Your task to perform on an android device: Show the shopping cart on newegg. Add "sony triple a" to the cart on newegg, then select checkout. Image 0: 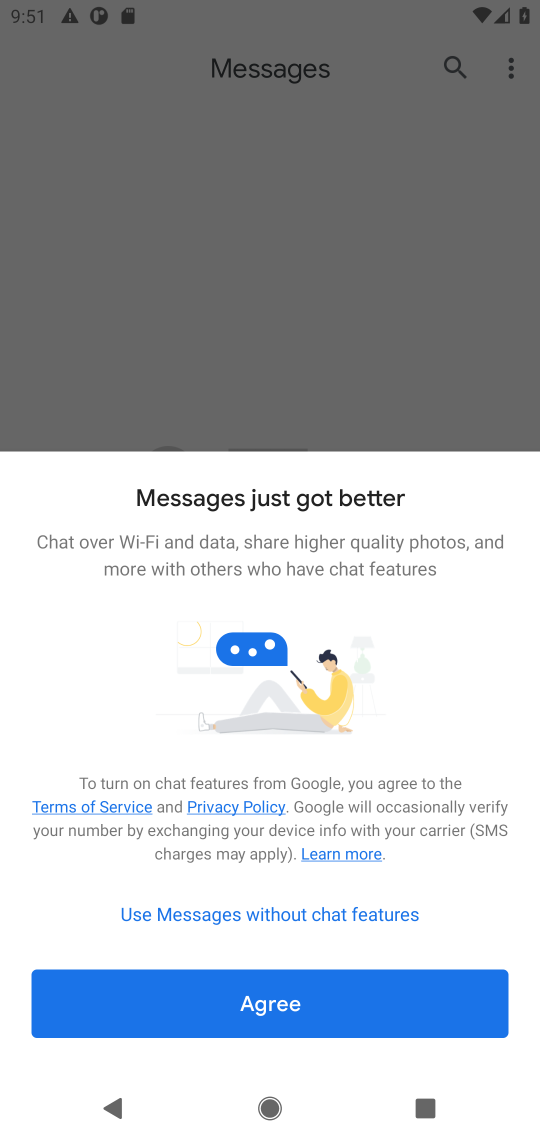
Step 0: press home button
Your task to perform on an android device: Show the shopping cart on newegg. Add "sony triple a" to the cart on newegg, then select checkout. Image 1: 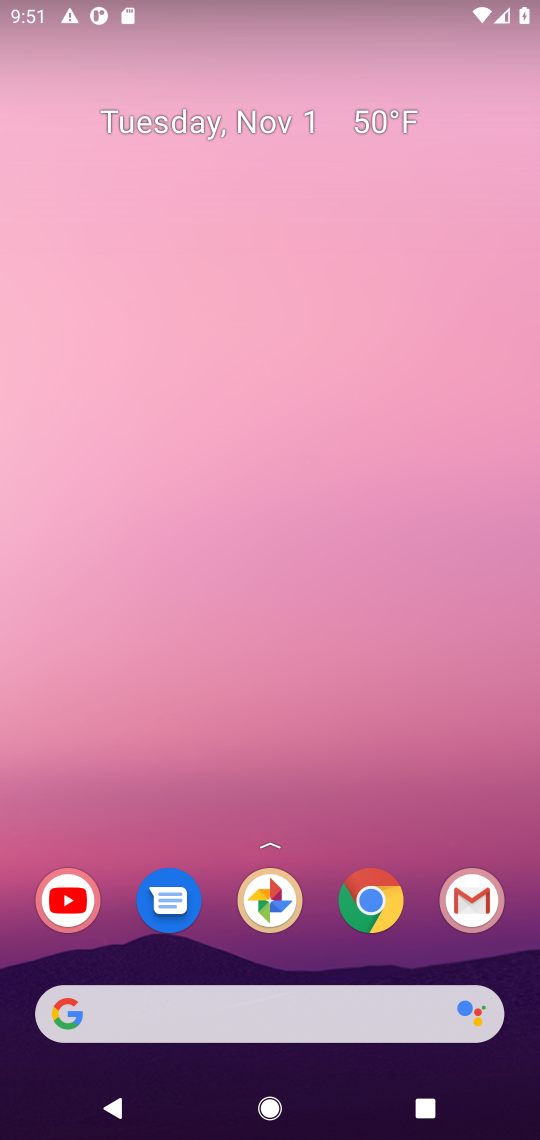
Step 1: click (393, 904)
Your task to perform on an android device: Show the shopping cart on newegg. Add "sony triple a" to the cart on newegg, then select checkout. Image 2: 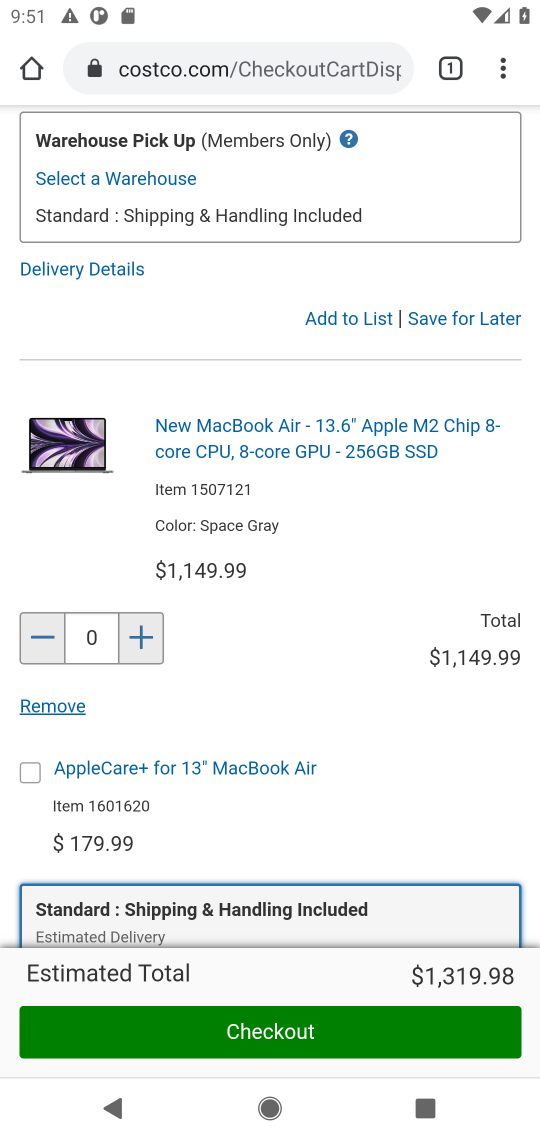
Step 2: click (307, 58)
Your task to perform on an android device: Show the shopping cart on newegg. Add "sony triple a" to the cart on newegg, then select checkout. Image 3: 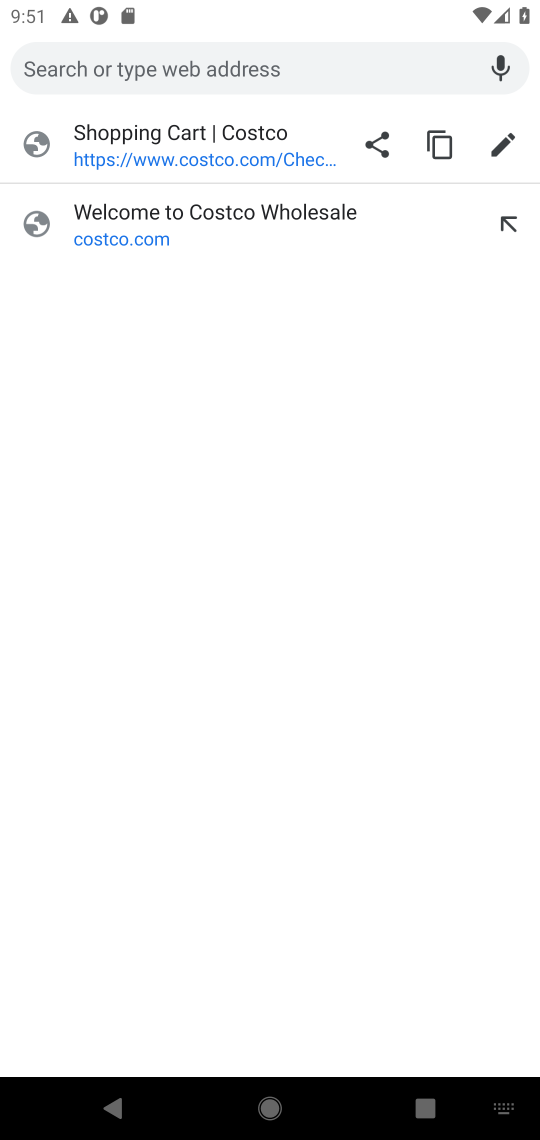
Step 3: type "newegg"
Your task to perform on an android device: Show the shopping cart on newegg. Add "sony triple a" to the cart on newegg, then select checkout. Image 4: 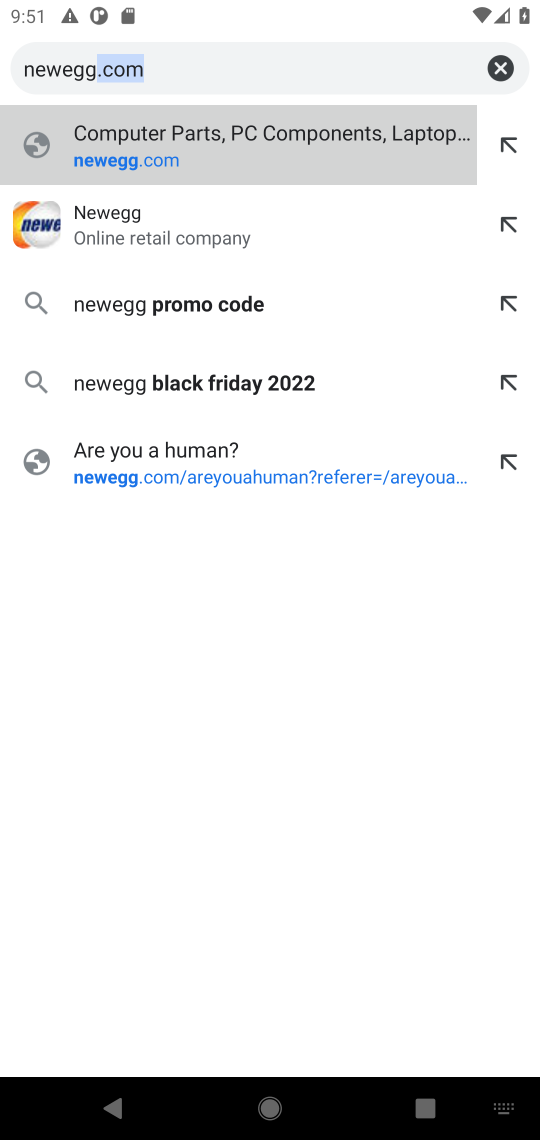
Step 4: click (208, 228)
Your task to perform on an android device: Show the shopping cart on newegg. Add "sony triple a" to the cart on newegg, then select checkout. Image 5: 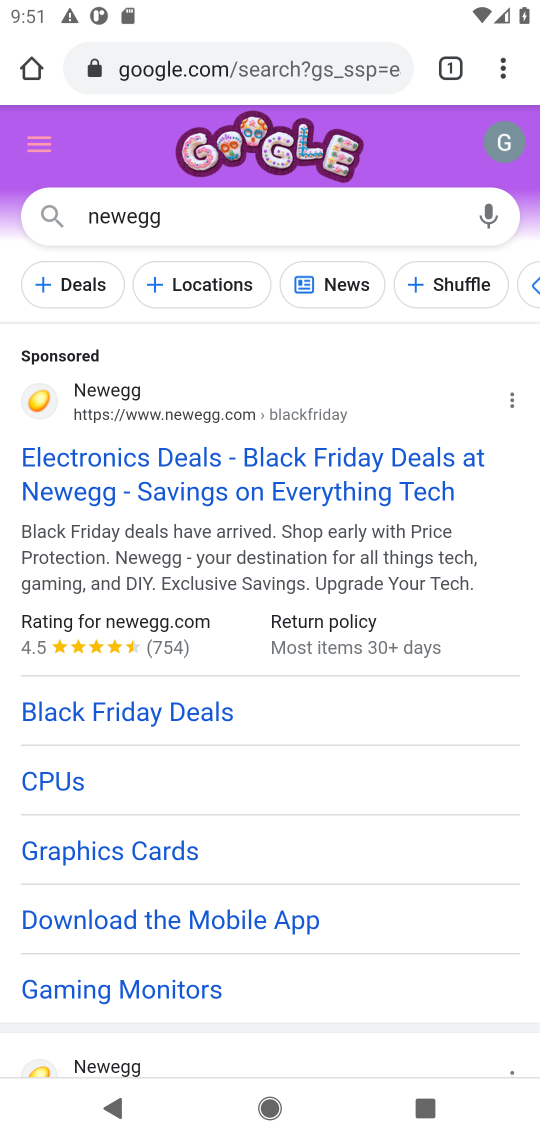
Step 5: click (166, 418)
Your task to perform on an android device: Show the shopping cart on newegg. Add "sony triple a" to the cart on newegg, then select checkout. Image 6: 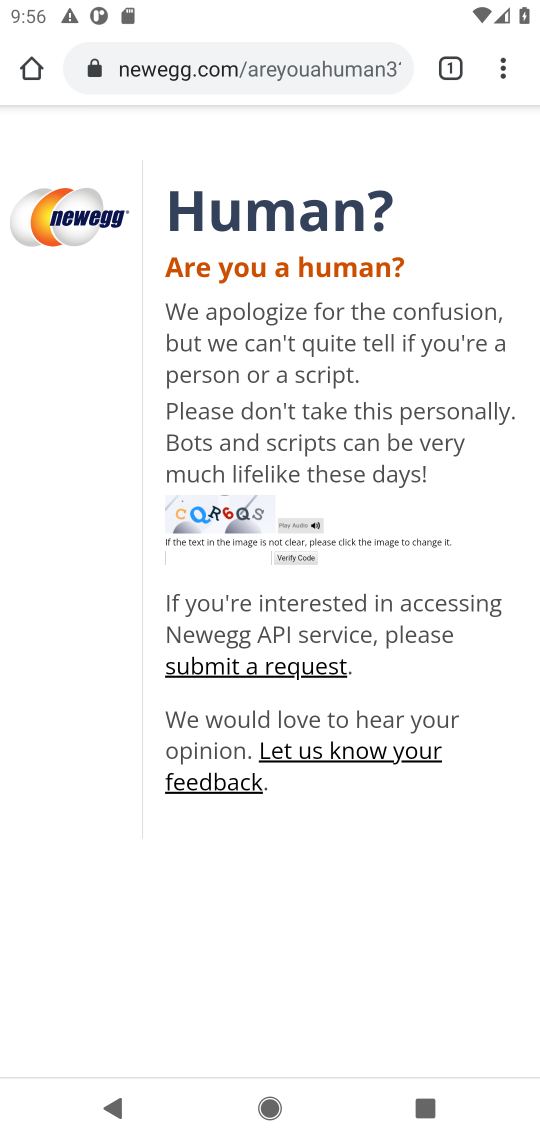
Step 6: task complete